Your task to perform on an android device: Open wifi settings Image 0: 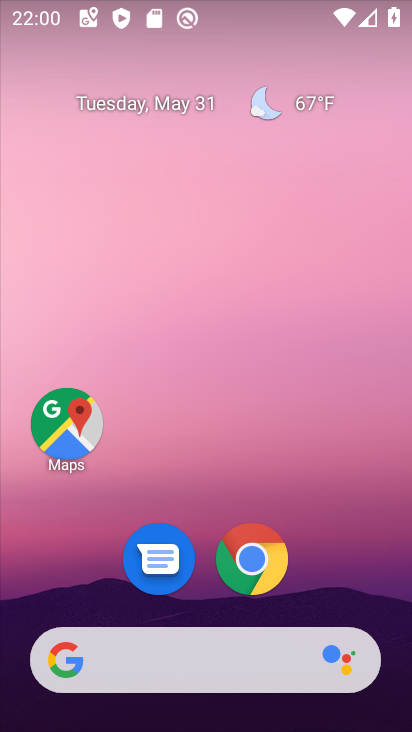
Step 0: drag from (332, 586) to (296, 167)
Your task to perform on an android device: Open wifi settings Image 1: 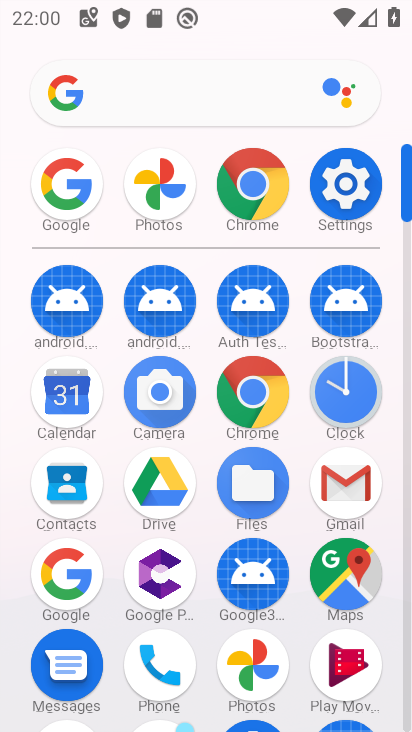
Step 1: click (354, 182)
Your task to perform on an android device: Open wifi settings Image 2: 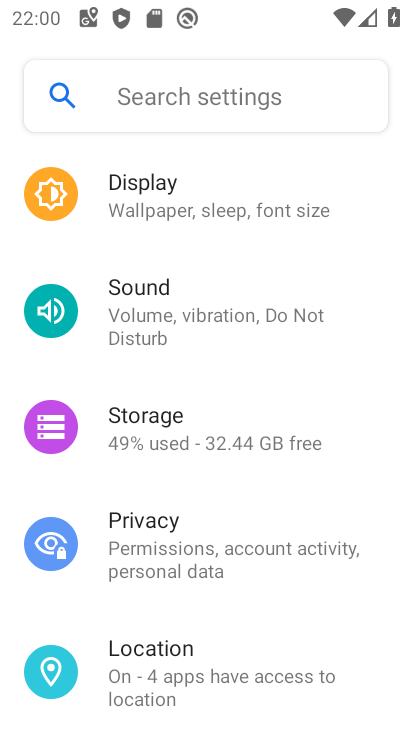
Step 2: drag from (260, 229) to (299, 677)
Your task to perform on an android device: Open wifi settings Image 3: 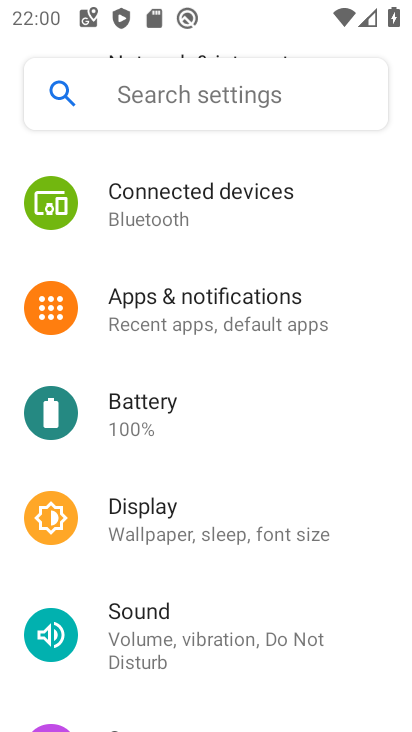
Step 3: drag from (170, 213) to (218, 651)
Your task to perform on an android device: Open wifi settings Image 4: 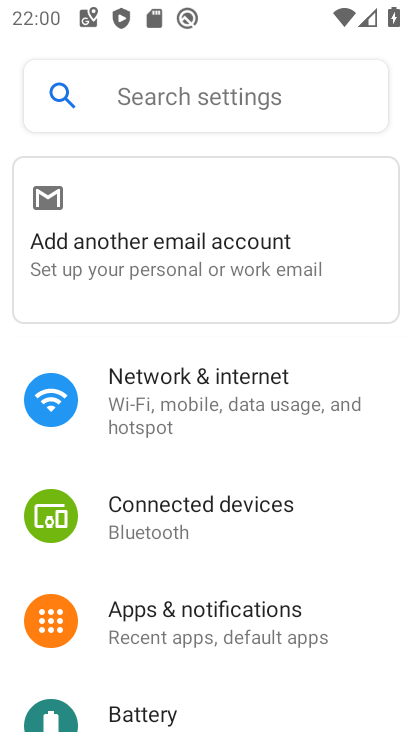
Step 4: click (187, 399)
Your task to perform on an android device: Open wifi settings Image 5: 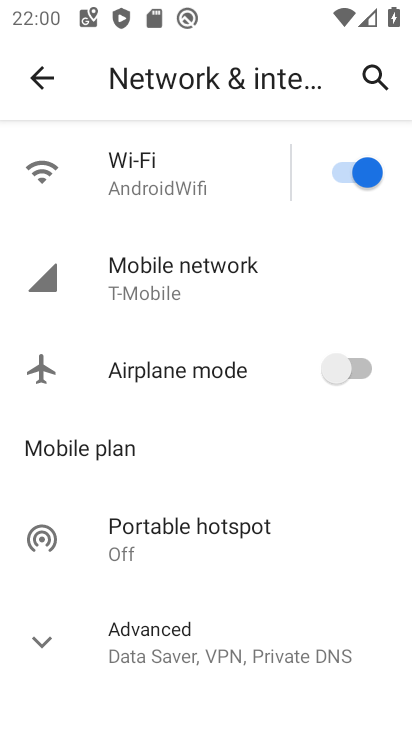
Step 5: click (186, 168)
Your task to perform on an android device: Open wifi settings Image 6: 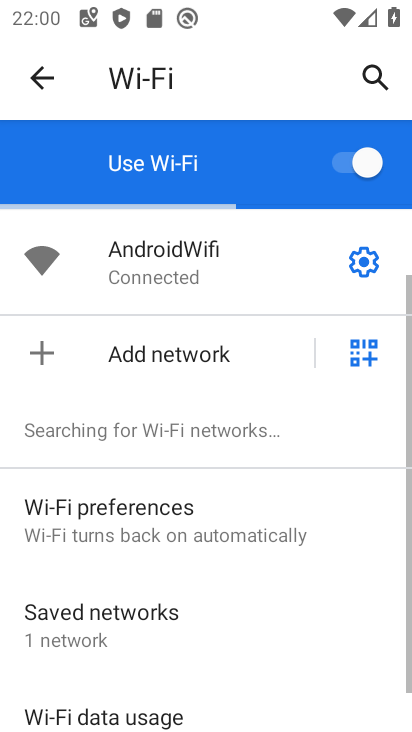
Step 6: click (143, 255)
Your task to perform on an android device: Open wifi settings Image 7: 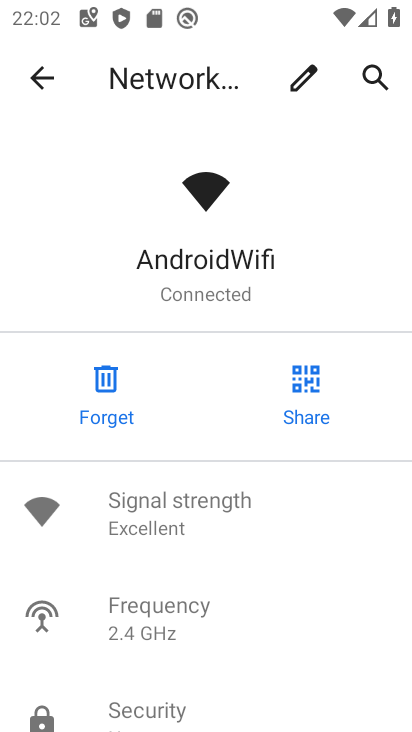
Step 7: task complete